Your task to perform on an android device: turn on the 24-hour format for clock Image 0: 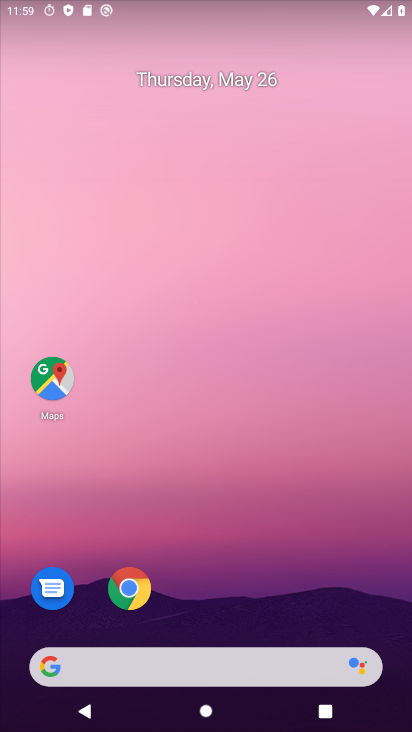
Step 0: drag from (189, 656) to (180, 261)
Your task to perform on an android device: turn on the 24-hour format for clock Image 1: 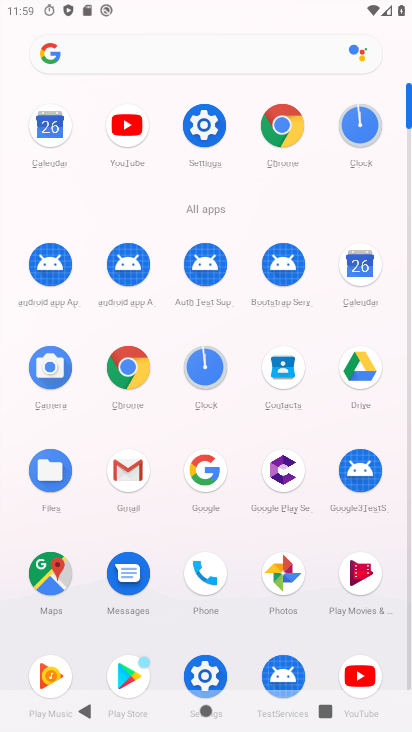
Step 1: click (352, 121)
Your task to perform on an android device: turn on the 24-hour format for clock Image 2: 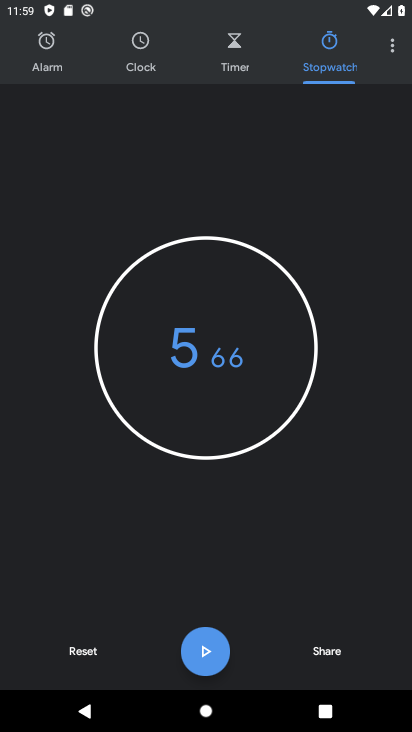
Step 2: click (394, 46)
Your task to perform on an android device: turn on the 24-hour format for clock Image 3: 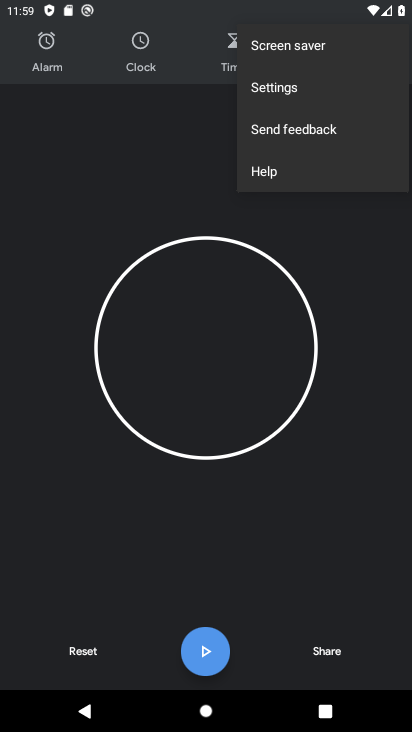
Step 3: click (271, 92)
Your task to perform on an android device: turn on the 24-hour format for clock Image 4: 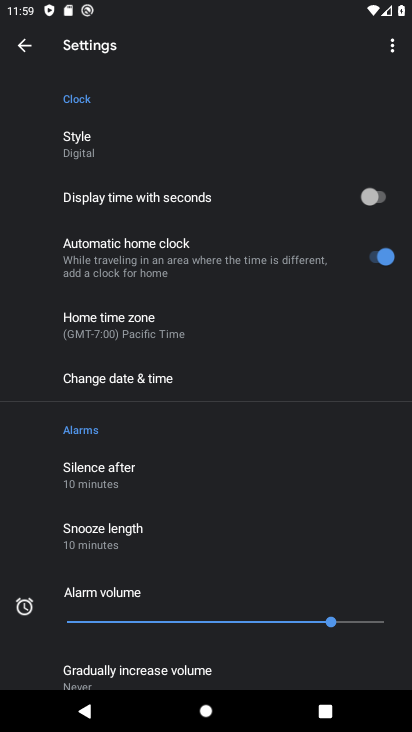
Step 4: drag from (140, 648) to (139, 309)
Your task to perform on an android device: turn on the 24-hour format for clock Image 5: 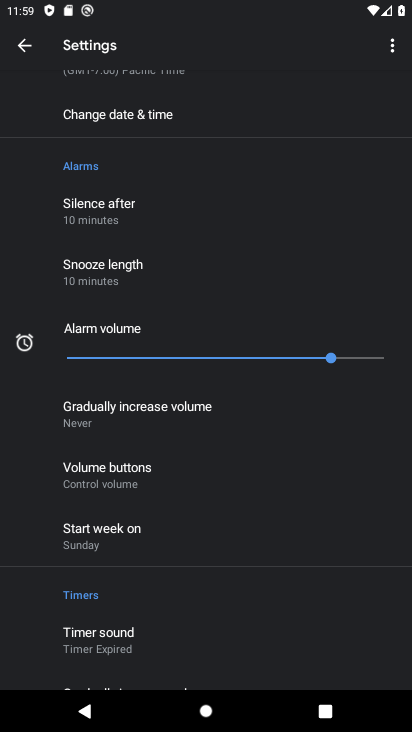
Step 5: click (121, 114)
Your task to perform on an android device: turn on the 24-hour format for clock Image 6: 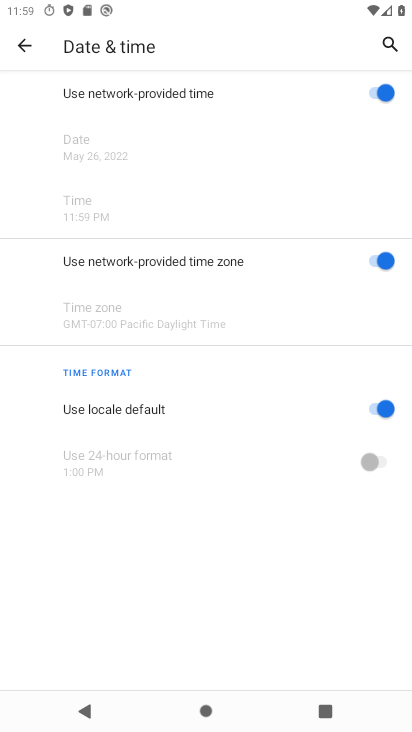
Step 6: click (380, 402)
Your task to perform on an android device: turn on the 24-hour format for clock Image 7: 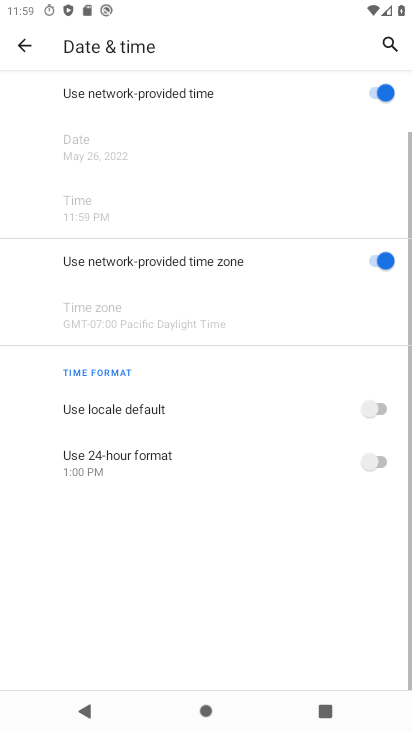
Step 7: click (379, 460)
Your task to perform on an android device: turn on the 24-hour format for clock Image 8: 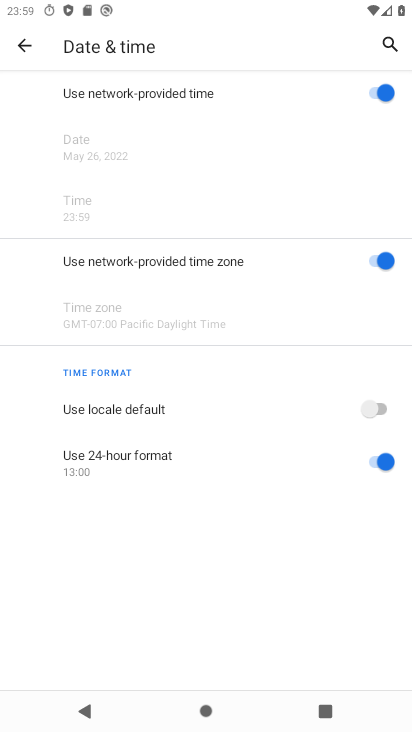
Step 8: task complete